Your task to perform on an android device: Open the map Image 0: 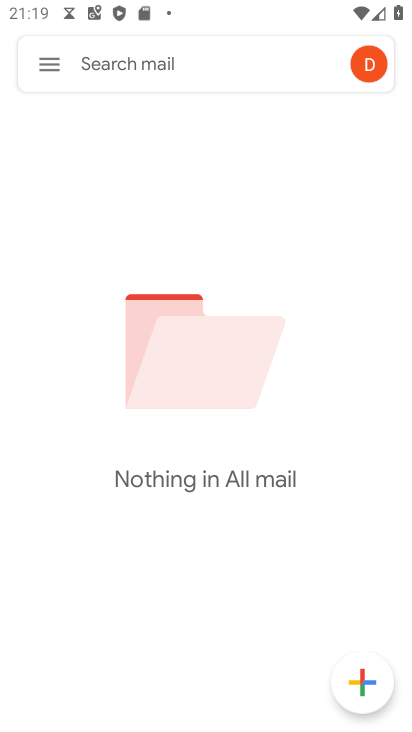
Step 0: press home button
Your task to perform on an android device: Open the map Image 1: 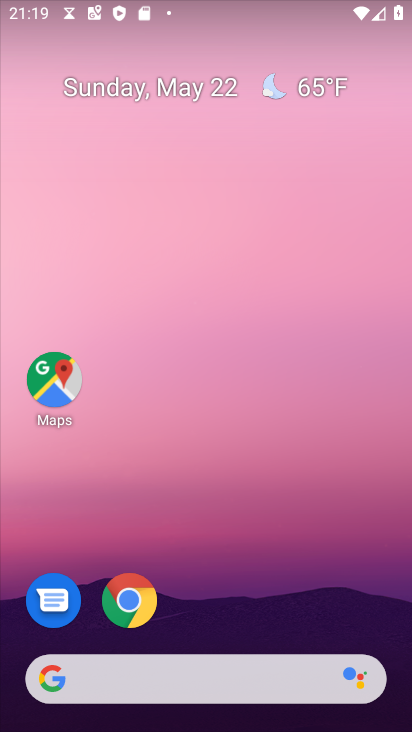
Step 1: click (43, 367)
Your task to perform on an android device: Open the map Image 2: 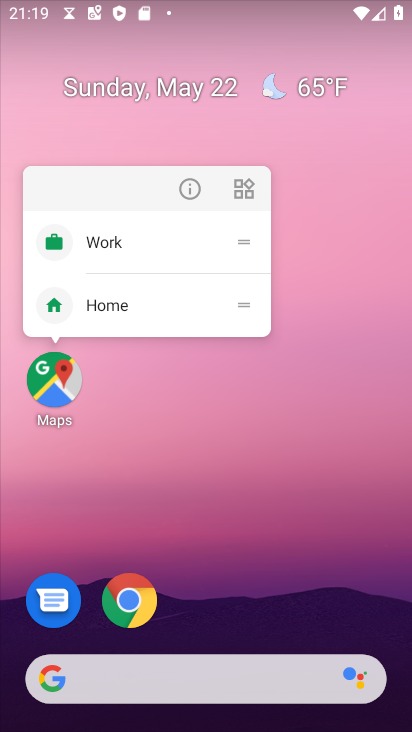
Step 2: click (46, 382)
Your task to perform on an android device: Open the map Image 3: 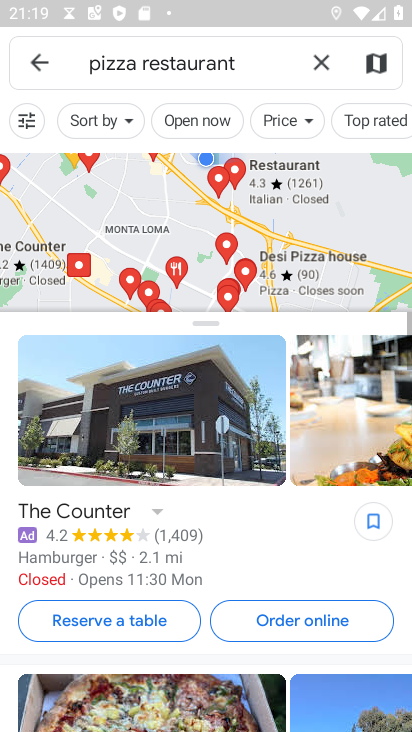
Step 3: task complete